Your task to perform on an android device: Add logitech g910 to the cart on bestbuy Image 0: 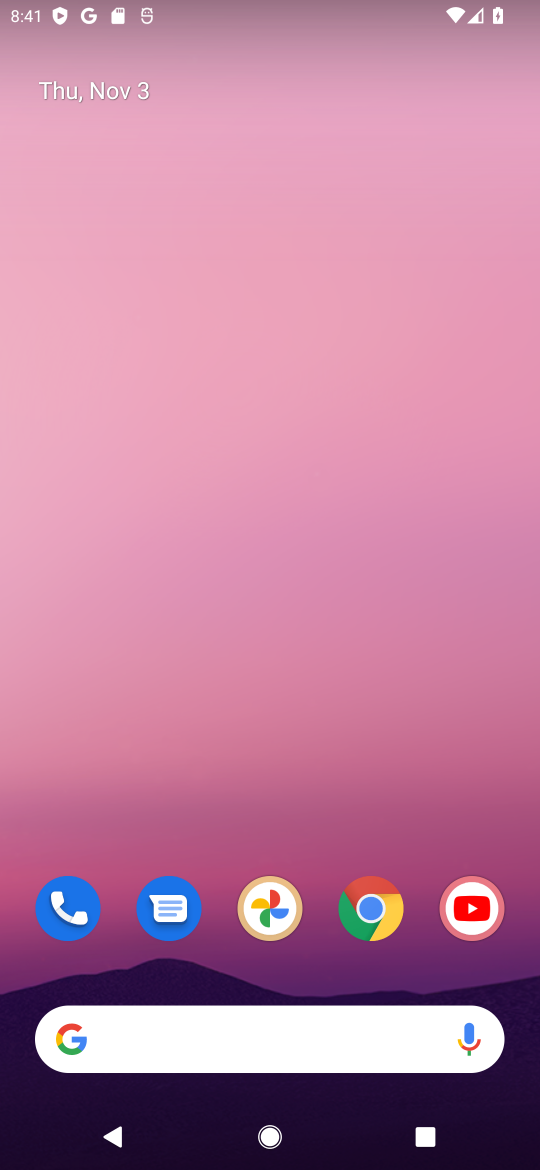
Step 0: click (361, 913)
Your task to perform on an android device: Add logitech g910 to the cart on bestbuy Image 1: 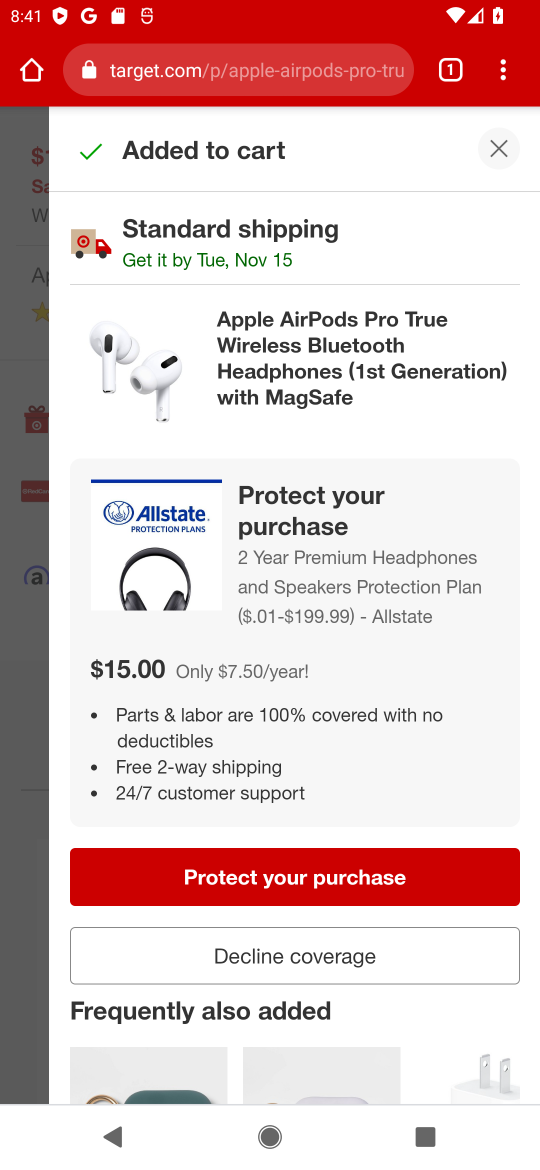
Step 1: click (314, 68)
Your task to perform on an android device: Add logitech g910 to the cart on bestbuy Image 2: 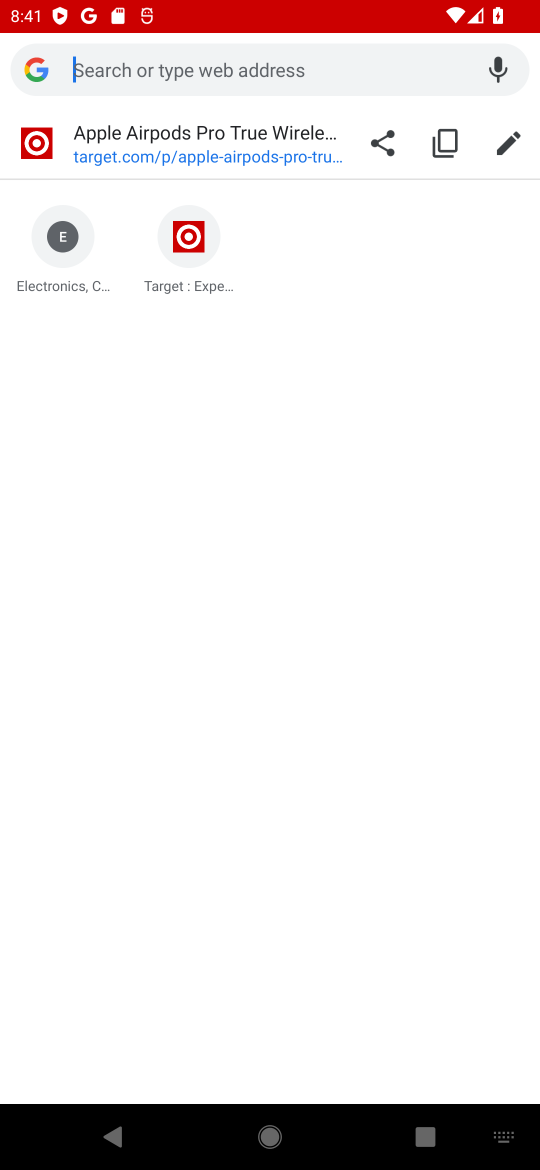
Step 2: click (183, 236)
Your task to perform on an android device: Add logitech g910 to the cart on bestbuy Image 3: 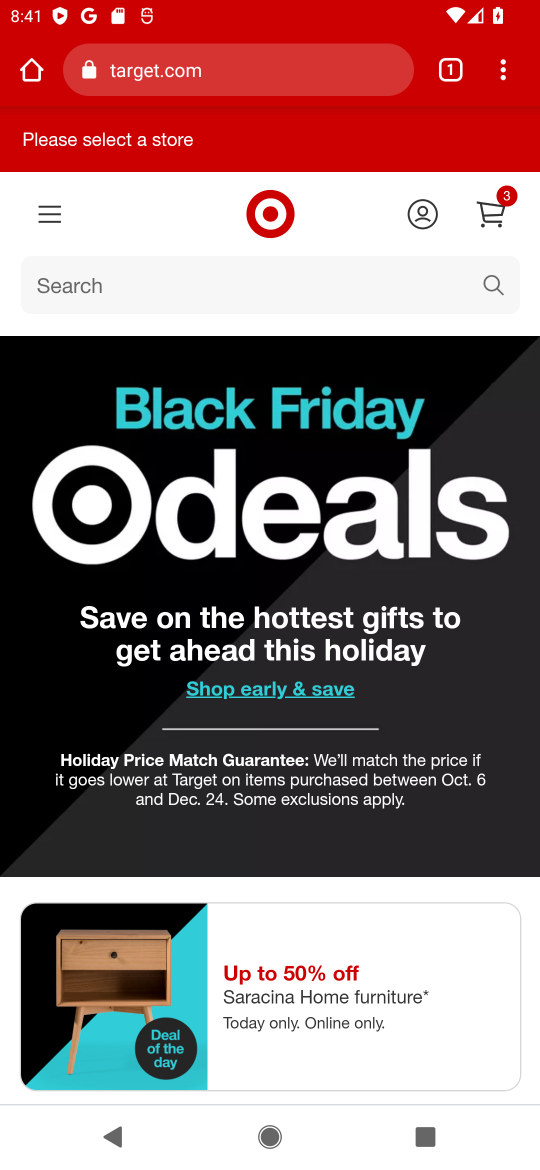
Step 3: click (31, 73)
Your task to perform on an android device: Add logitech g910 to the cart on bestbuy Image 4: 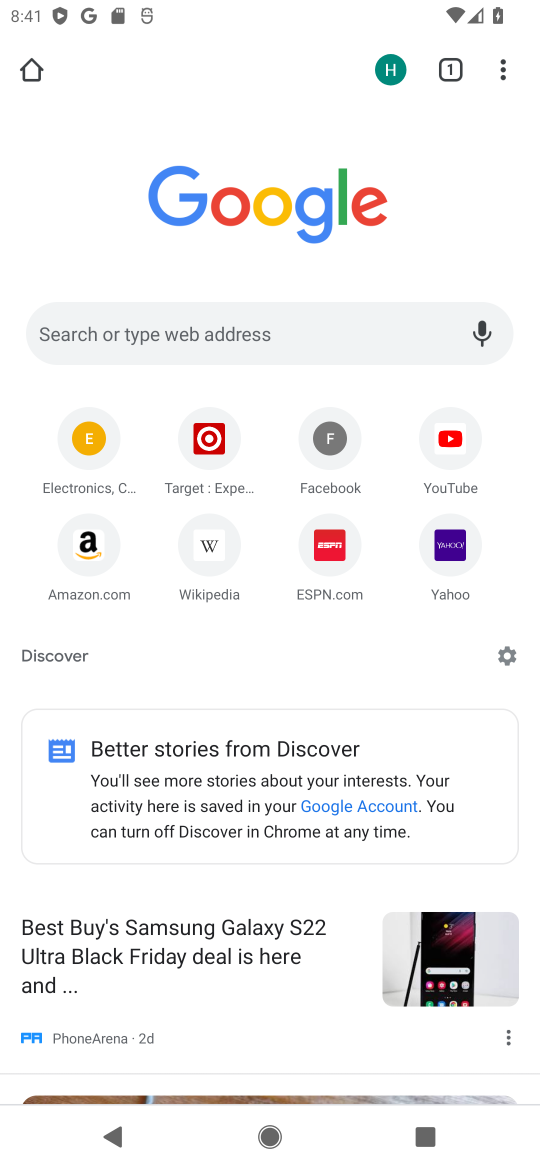
Step 4: click (392, 329)
Your task to perform on an android device: Add logitech g910 to the cart on bestbuy Image 5: 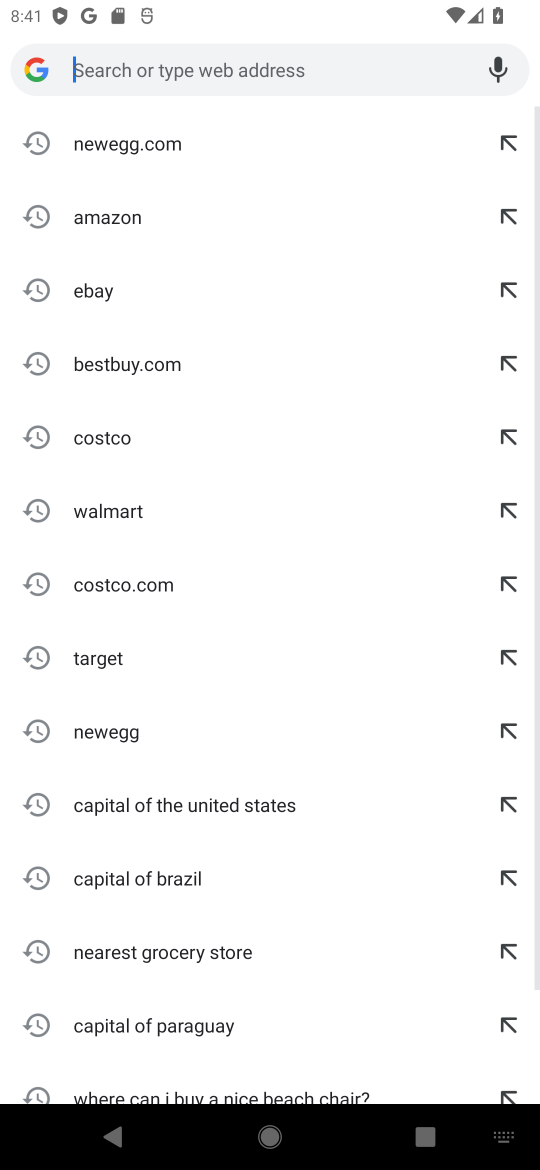
Step 5: click (132, 363)
Your task to perform on an android device: Add logitech g910 to the cart on bestbuy Image 6: 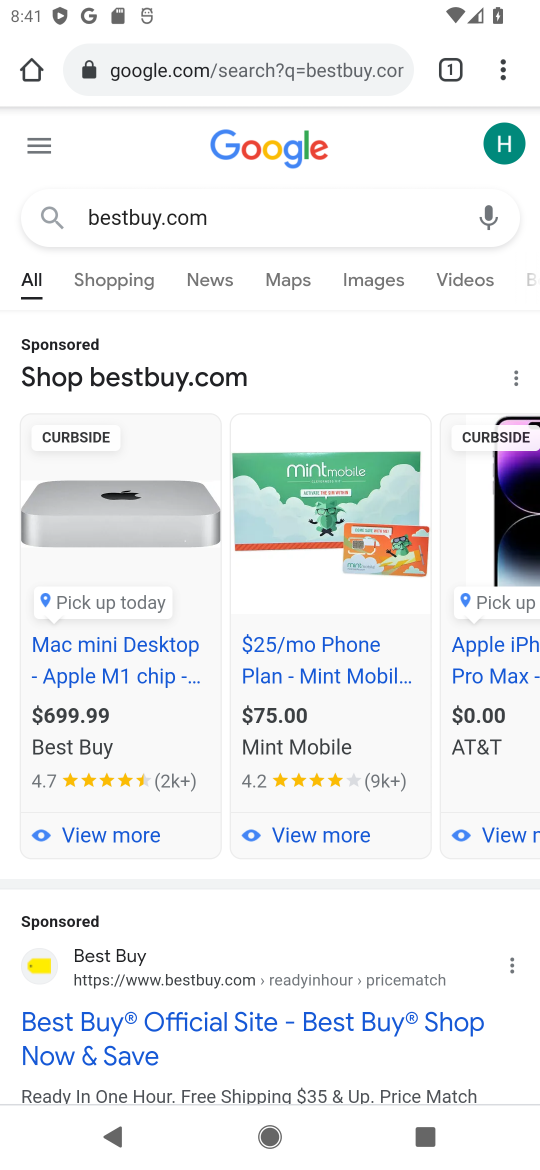
Step 6: click (242, 974)
Your task to perform on an android device: Add logitech g910 to the cart on bestbuy Image 7: 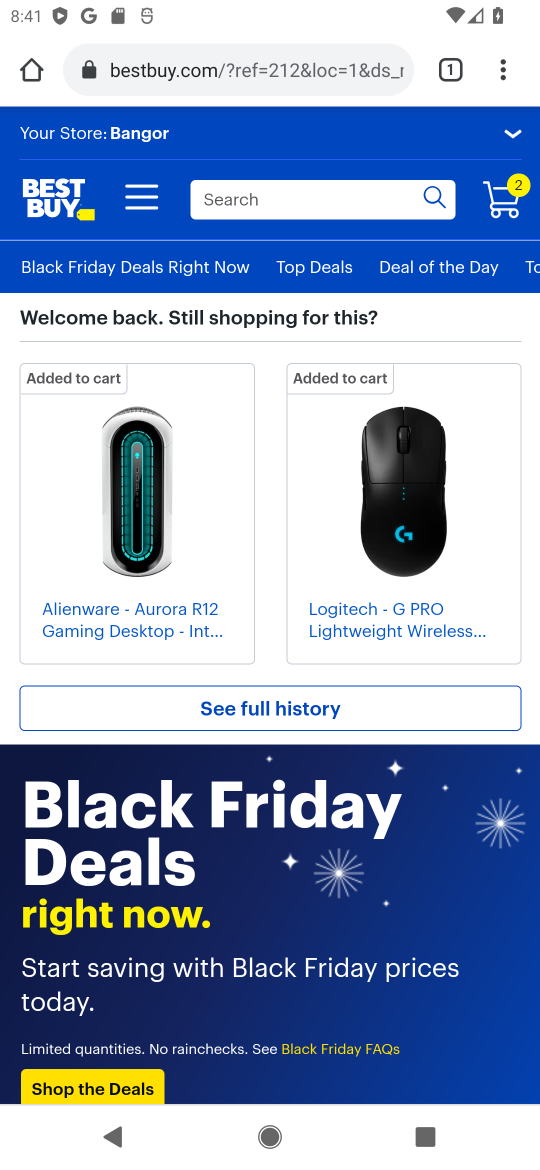
Step 7: click (375, 193)
Your task to perform on an android device: Add logitech g910 to the cart on bestbuy Image 8: 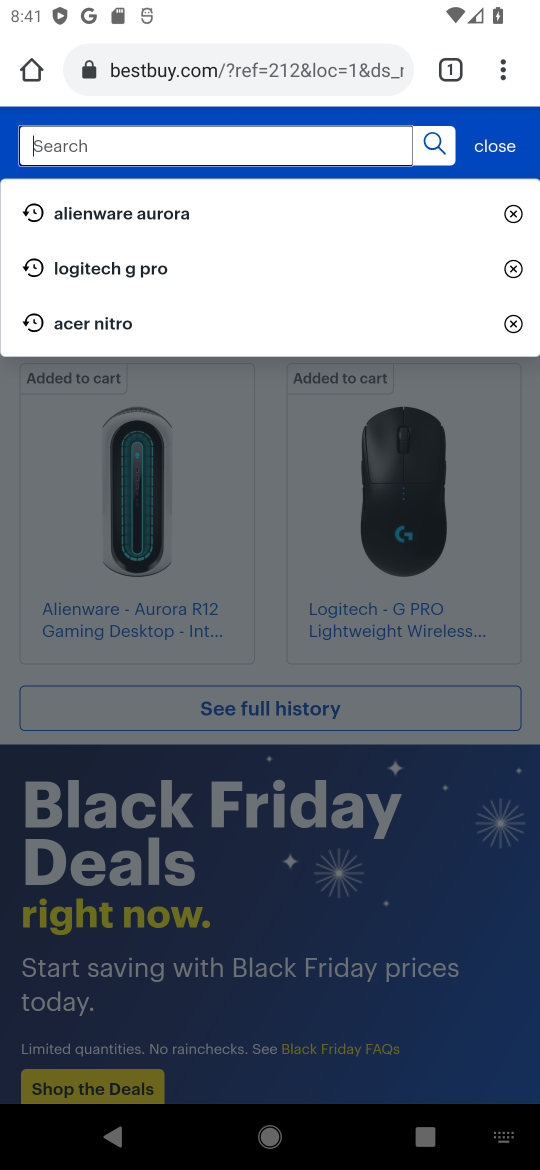
Step 8: type "logitech g910"
Your task to perform on an android device: Add logitech g910 to the cart on bestbuy Image 9: 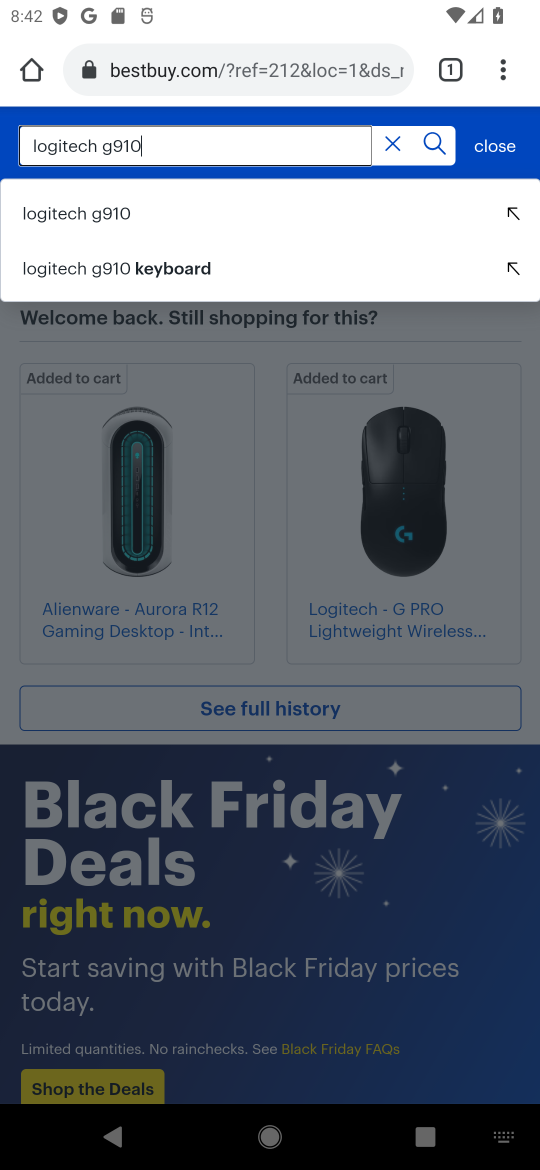
Step 9: click (51, 216)
Your task to perform on an android device: Add logitech g910 to the cart on bestbuy Image 10: 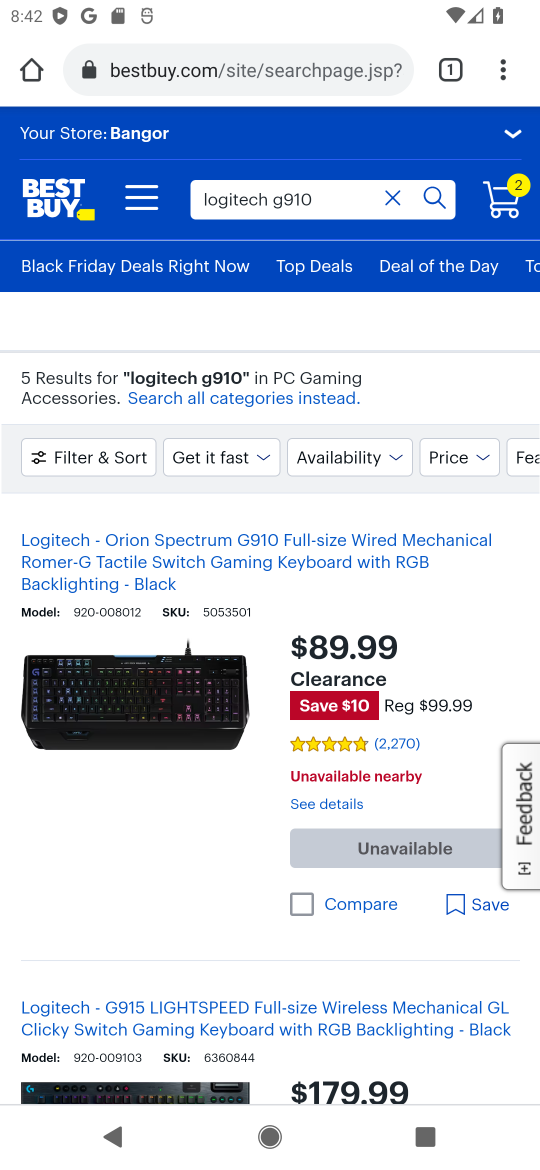
Step 10: drag from (213, 905) to (221, 576)
Your task to perform on an android device: Add logitech g910 to the cart on bestbuy Image 11: 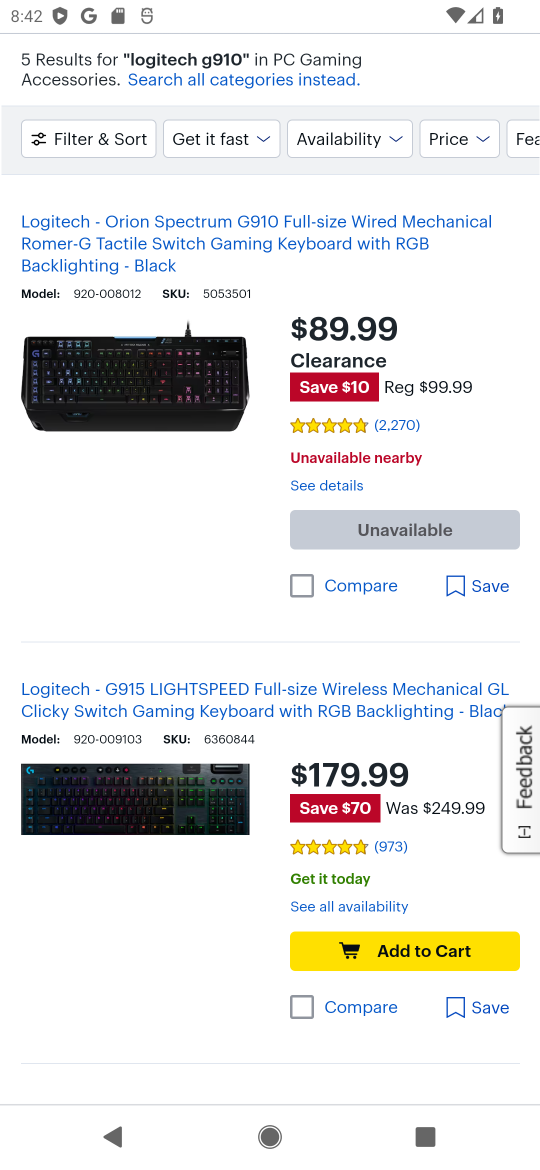
Step 11: drag from (210, 702) to (217, 340)
Your task to perform on an android device: Add logitech g910 to the cart on bestbuy Image 12: 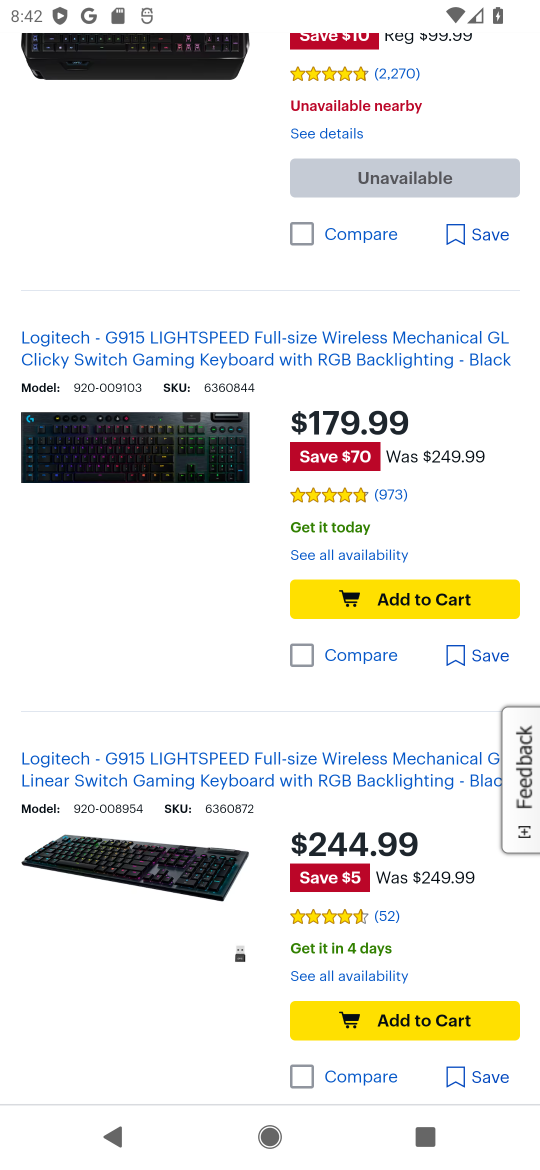
Step 12: drag from (186, 787) to (177, 363)
Your task to perform on an android device: Add logitech g910 to the cart on bestbuy Image 13: 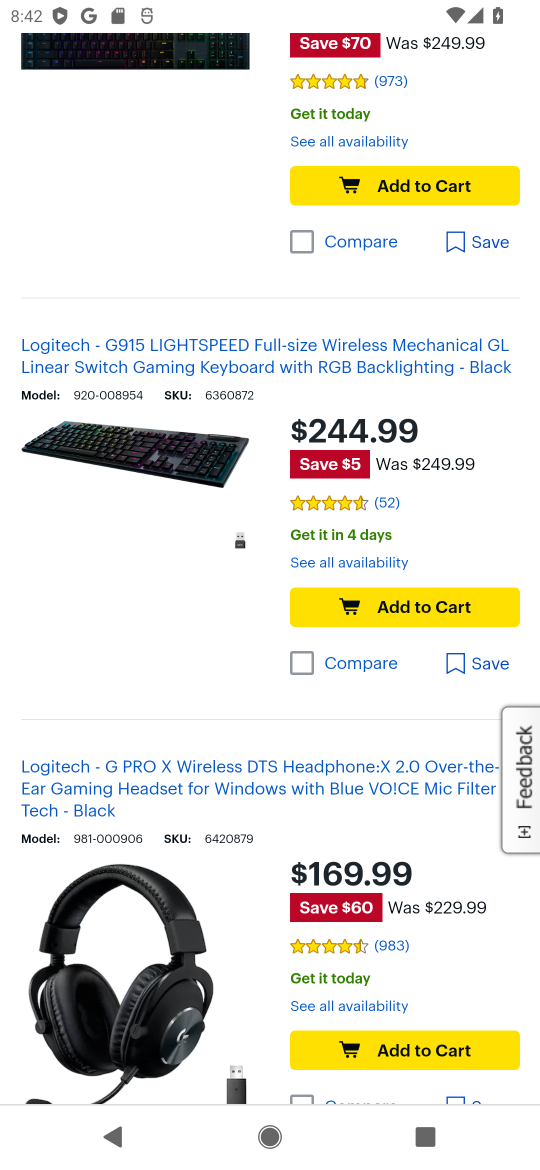
Step 13: drag from (228, 821) to (207, 349)
Your task to perform on an android device: Add logitech g910 to the cart on bestbuy Image 14: 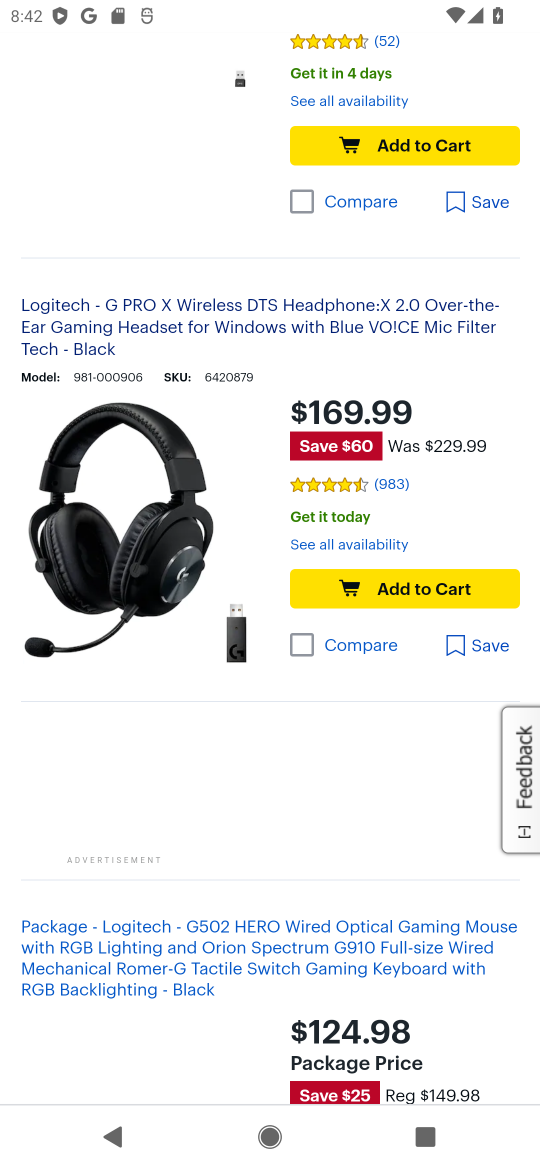
Step 14: drag from (219, 952) to (250, 446)
Your task to perform on an android device: Add logitech g910 to the cart on bestbuy Image 15: 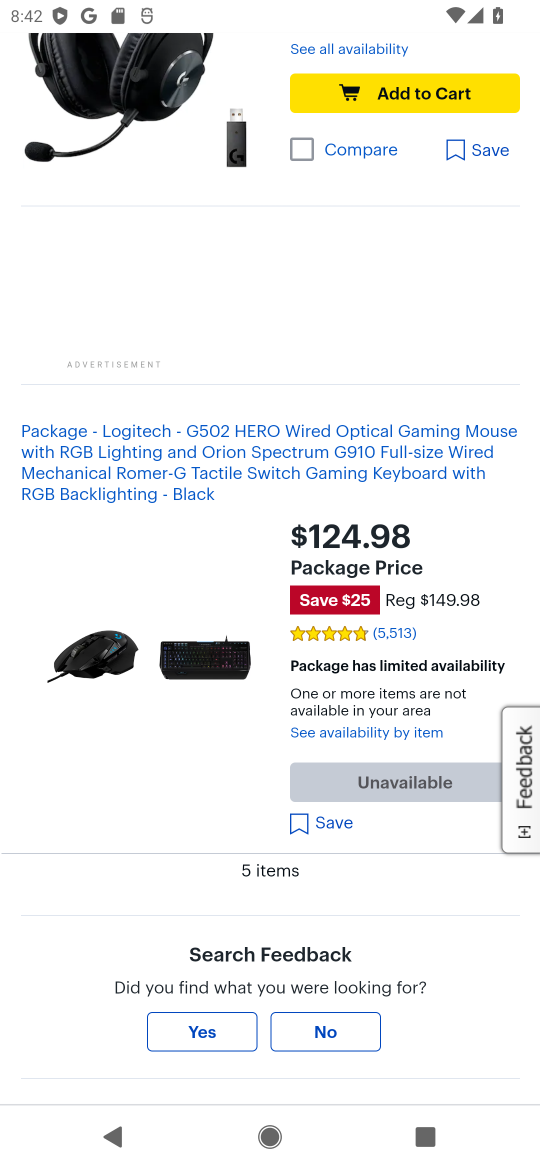
Step 15: drag from (204, 411) to (215, 1042)
Your task to perform on an android device: Add logitech g910 to the cart on bestbuy Image 16: 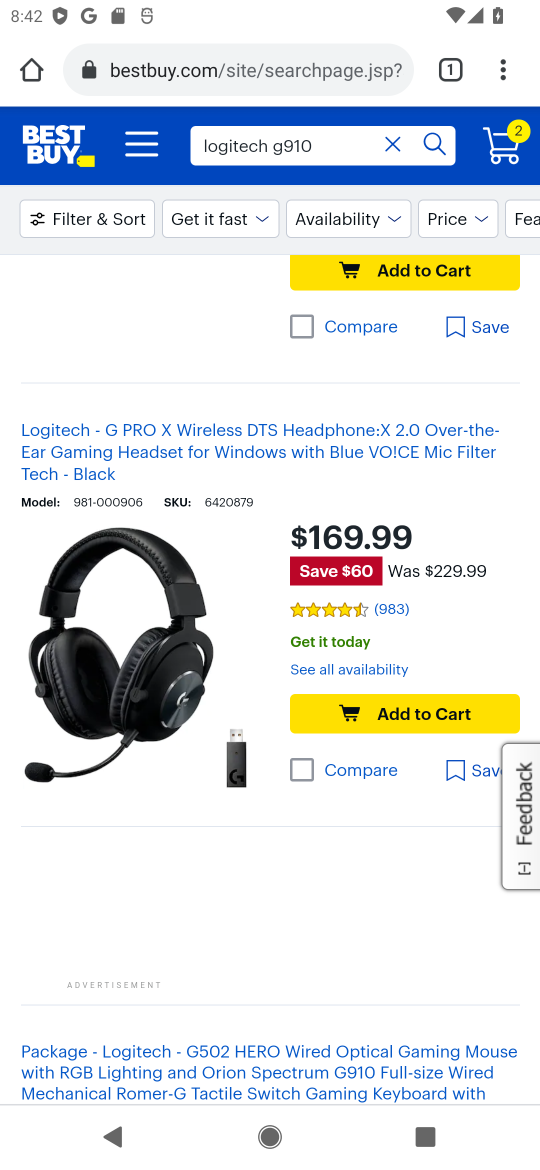
Step 16: drag from (179, 288) to (284, 886)
Your task to perform on an android device: Add logitech g910 to the cart on bestbuy Image 17: 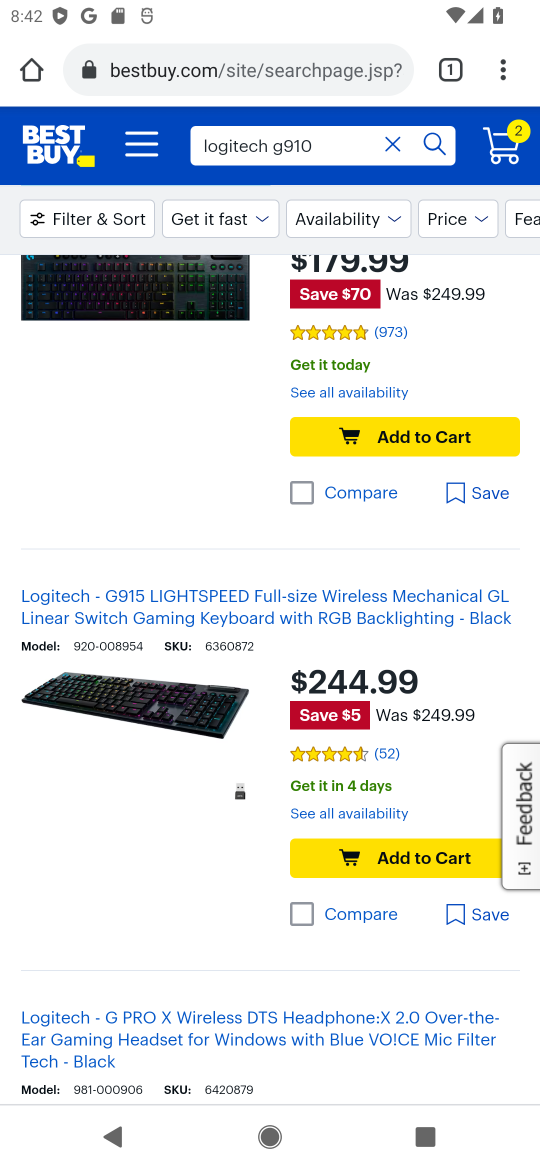
Step 17: drag from (205, 473) to (268, 959)
Your task to perform on an android device: Add logitech g910 to the cart on bestbuy Image 18: 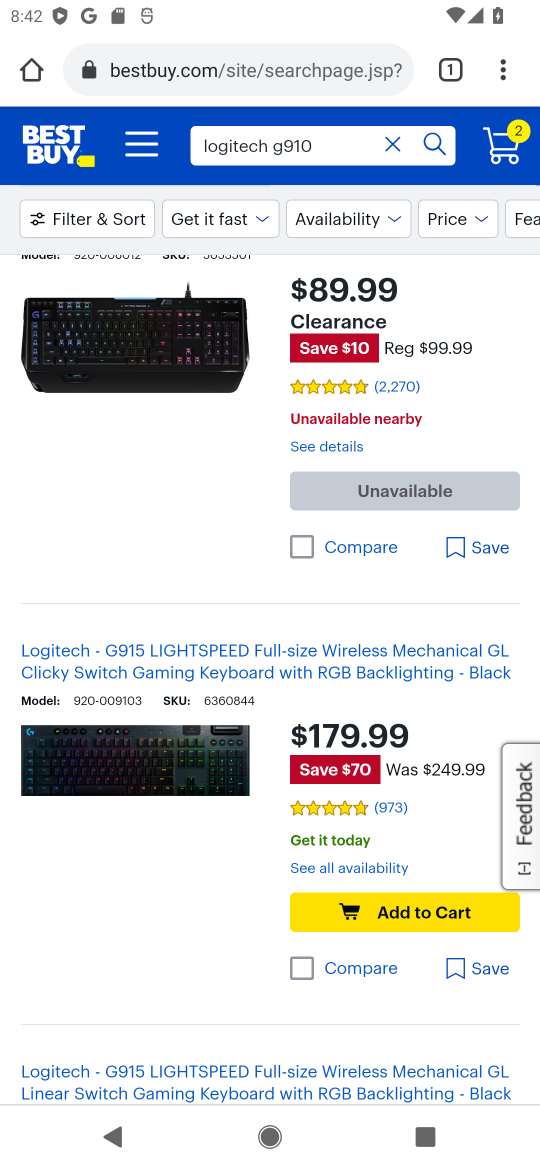
Step 18: drag from (195, 646) to (290, 1028)
Your task to perform on an android device: Add logitech g910 to the cart on bestbuy Image 19: 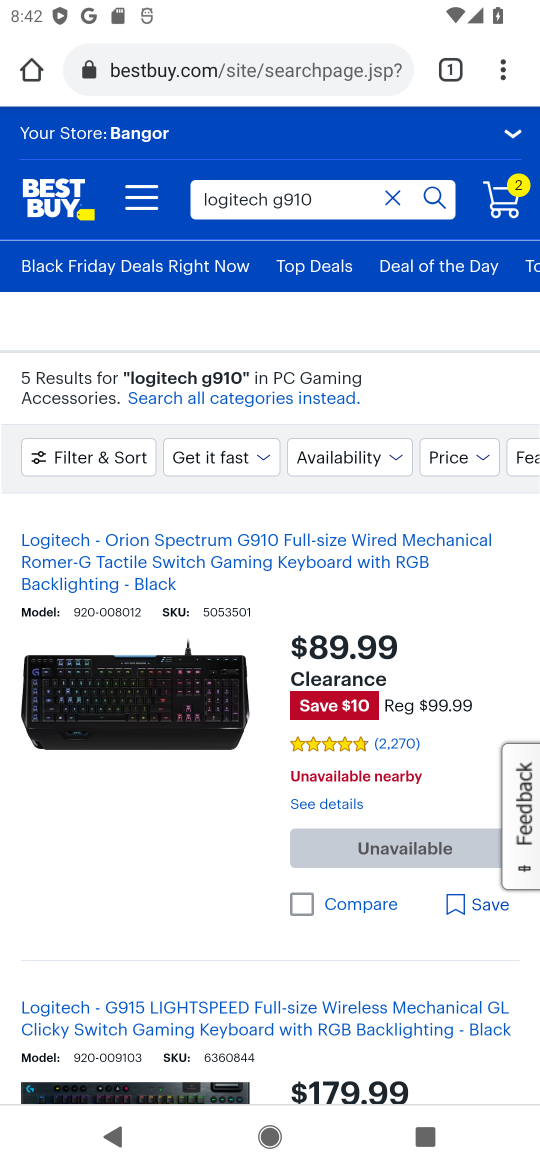
Step 19: click (167, 827)
Your task to perform on an android device: Add logitech g910 to the cart on bestbuy Image 20: 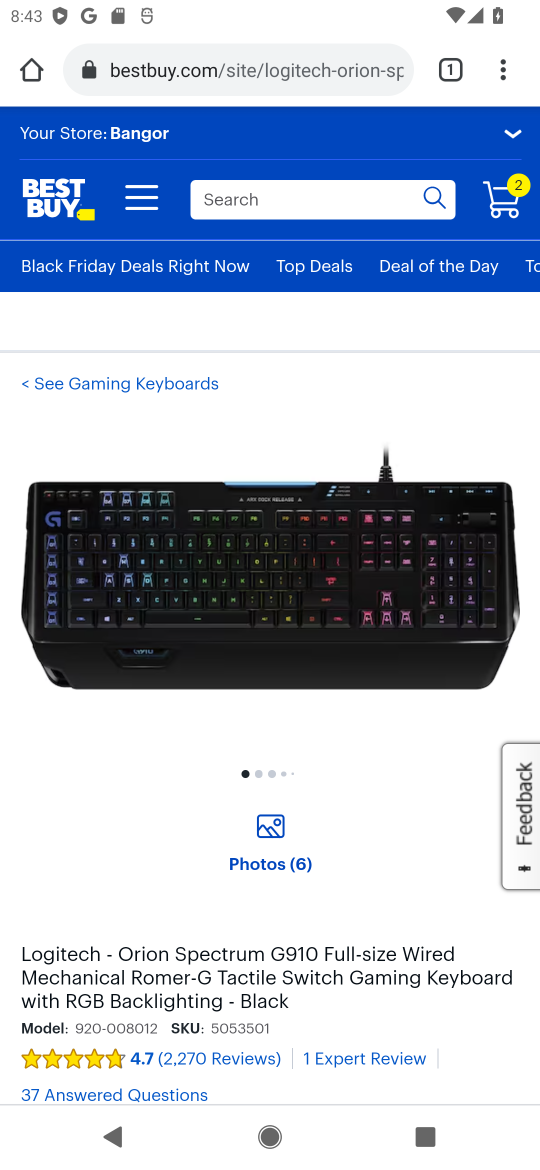
Step 20: task complete